Your task to perform on an android device: stop showing notifications on the lock screen Image 0: 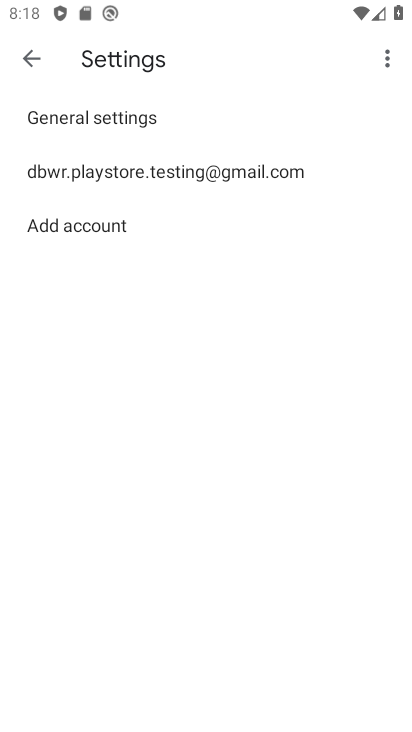
Step 0: press home button
Your task to perform on an android device: stop showing notifications on the lock screen Image 1: 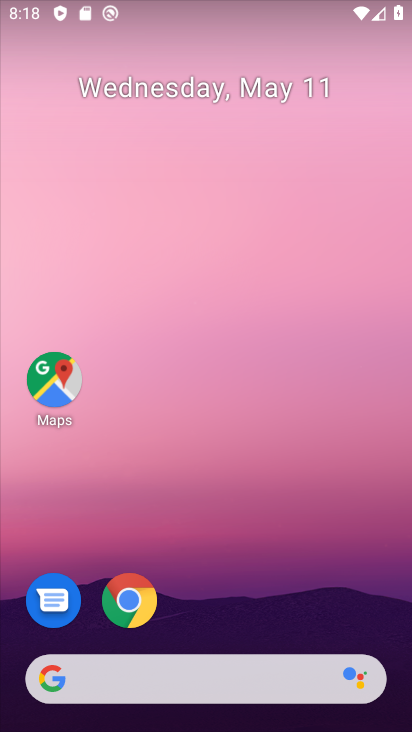
Step 1: drag from (217, 593) to (244, 51)
Your task to perform on an android device: stop showing notifications on the lock screen Image 2: 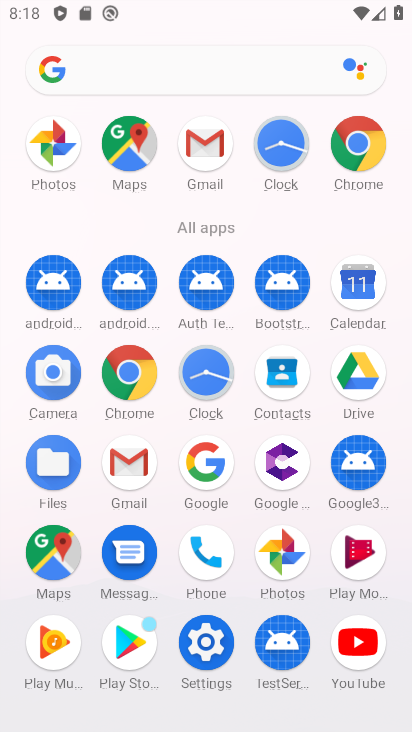
Step 2: click (200, 646)
Your task to perform on an android device: stop showing notifications on the lock screen Image 3: 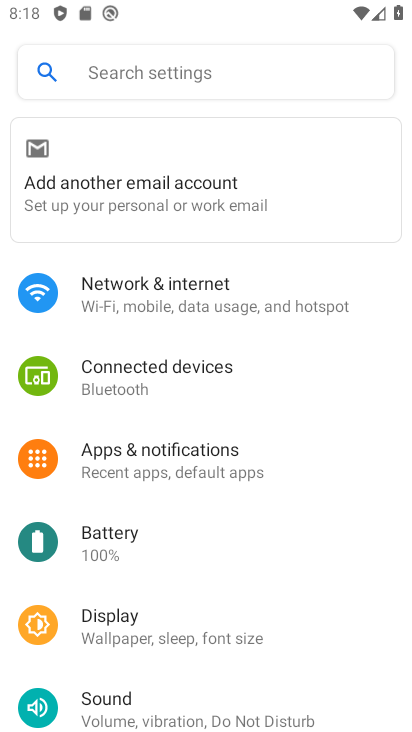
Step 3: drag from (241, 591) to (273, 499)
Your task to perform on an android device: stop showing notifications on the lock screen Image 4: 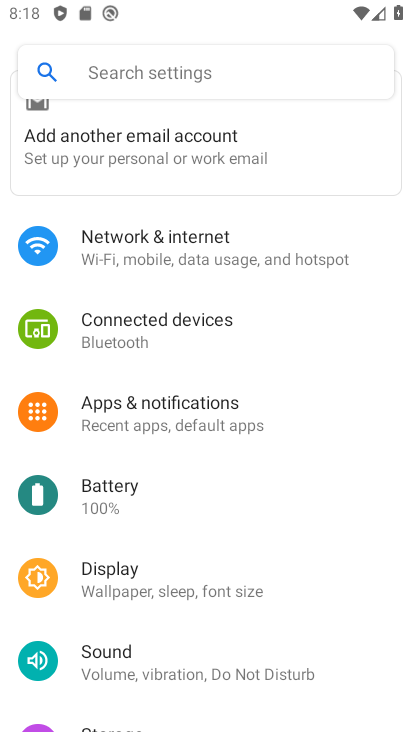
Step 4: click (168, 403)
Your task to perform on an android device: stop showing notifications on the lock screen Image 5: 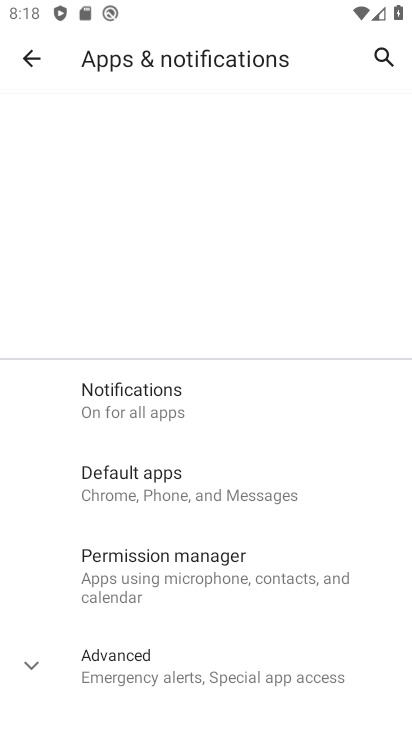
Step 5: click (172, 400)
Your task to perform on an android device: stop showing notifications on the lock screen Image 6: 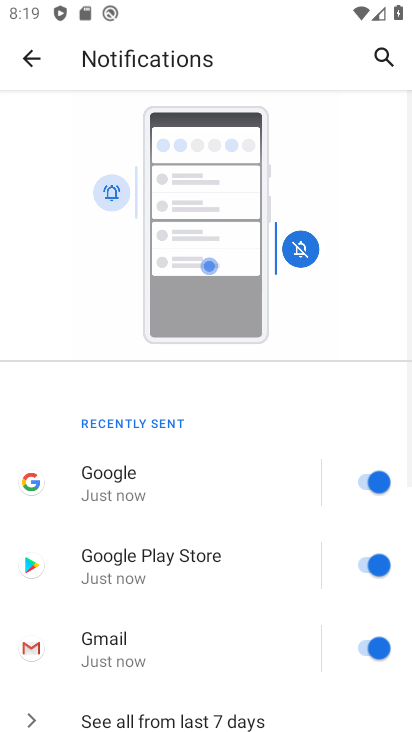
Step 6: drag from (238, 650) to (260, 234)
Your task to perform on an android device: stop showing notifications on the lock screen Image 7: 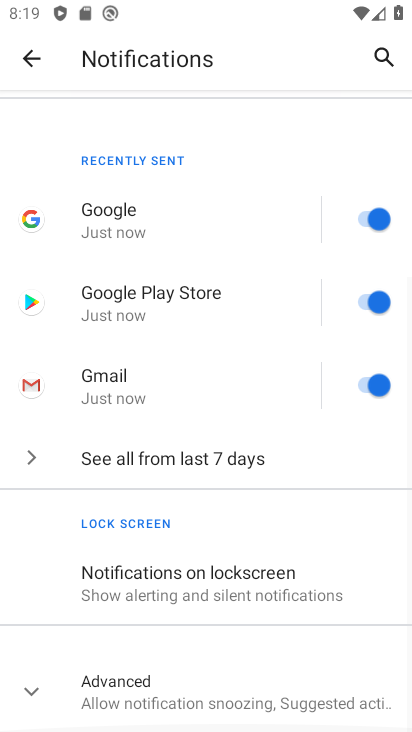
Step 7: click (202, 587)
Your task to perform on an android device: stop showing notifications on the lock screen Image 8: 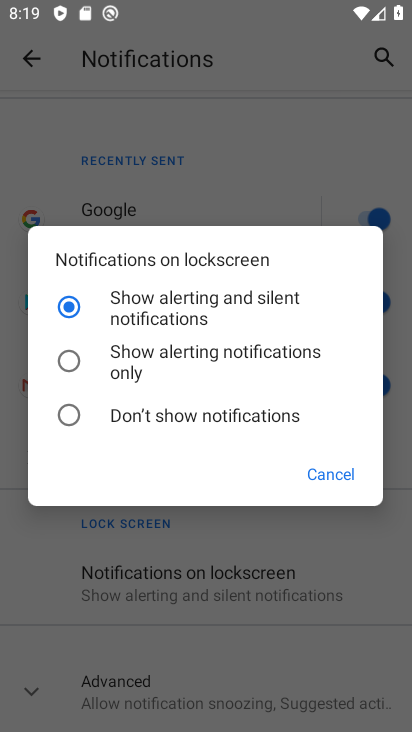
Step 8: click (64, 420)
Your task to perform on an android device: stop showing notifications on the lock screen Image 9: 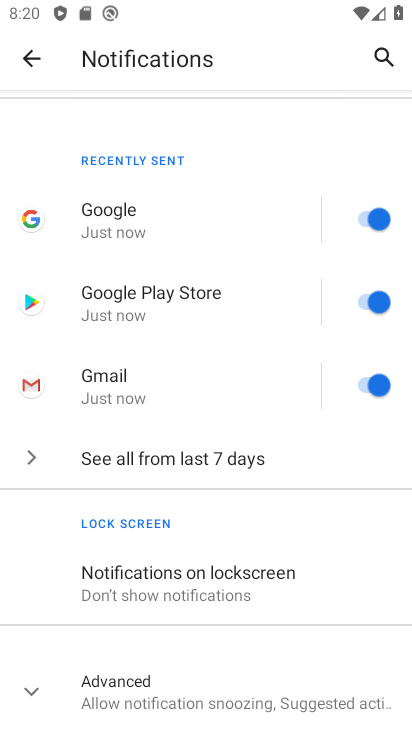
Step 9: task complete